Your task to perform on an android device: turn off location history Image 0: 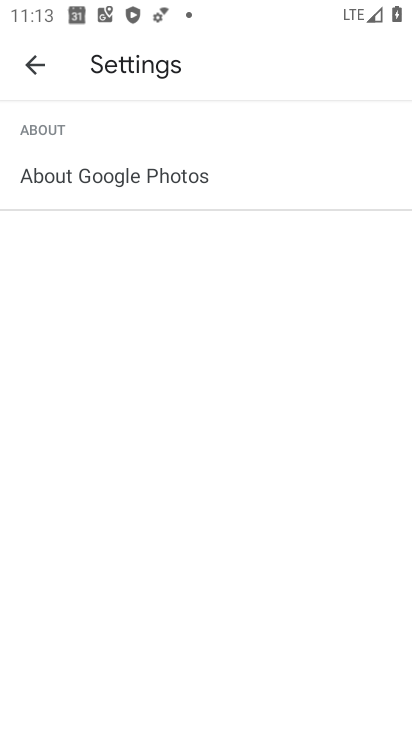
Step 0: click (45, 56)
Your task to perform on an android device: turn off location history Image 1: 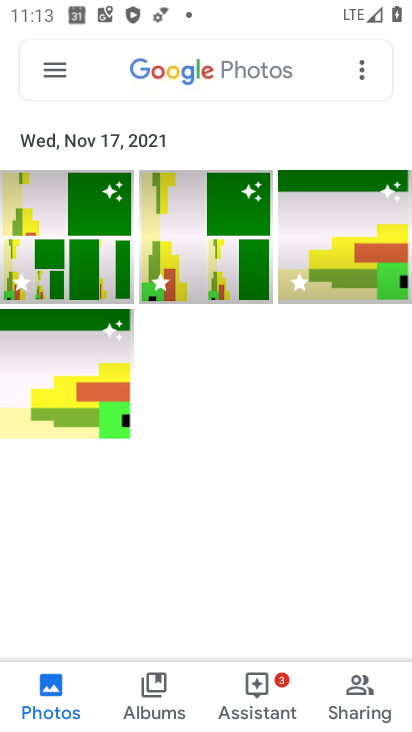
Step 1: press home button
Your task to perform on an android device: turn off location history Image 2: 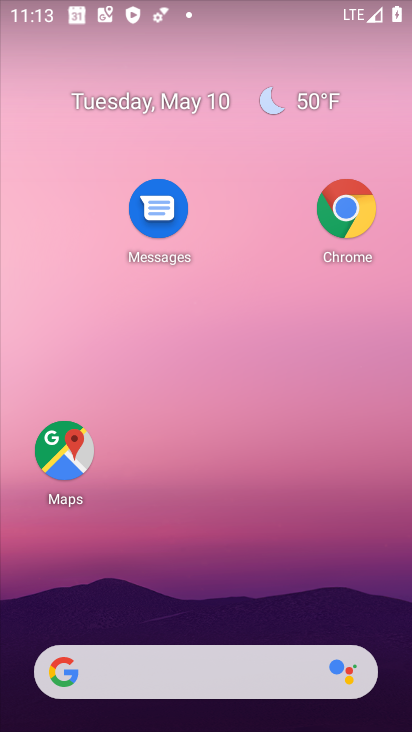
Step 2: drag from (195, 644) to (306, 52)
Your task to perform on an android device: turn off location history Image 3: 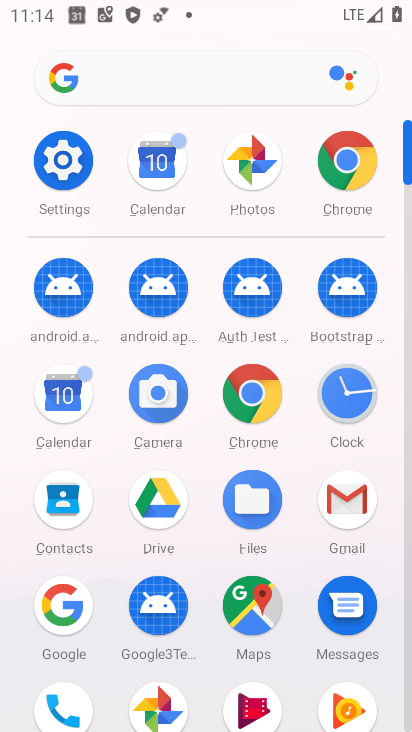
Step 3: click (62, 166)
Your task to perform on an android device: turn off location history Image 4: 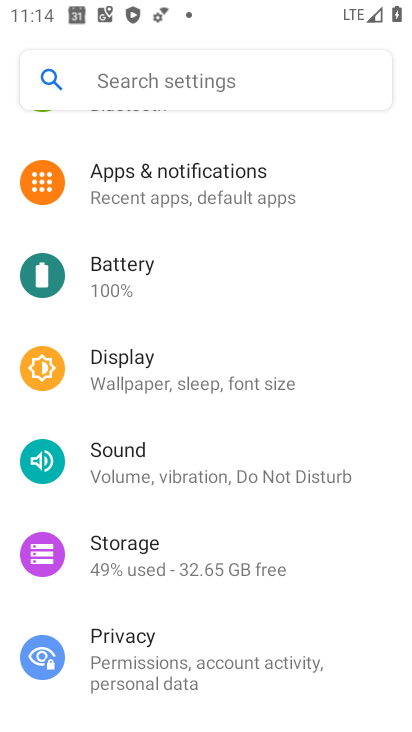
Step 4: drag from (233, 630) to (190, 187)
Your task to perform on an android device: turn off location history Image 5: 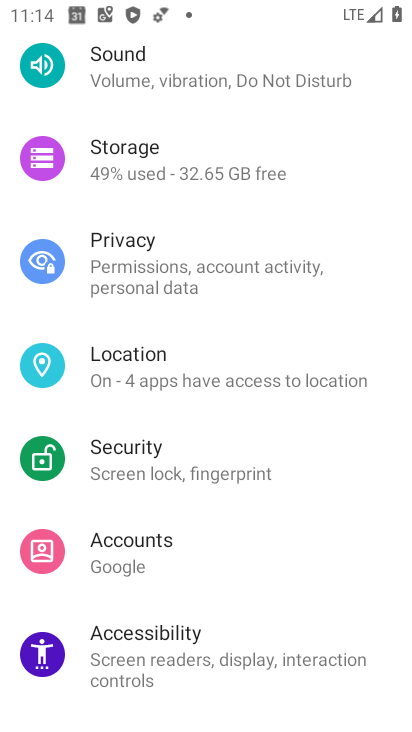
Step 5: click (160, 384)
Your task to perform on an android device: turn off location history Image 6: 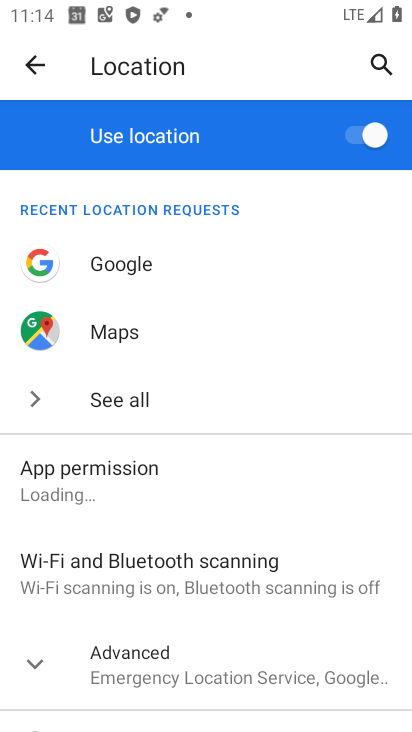
Step 6: drag from (238, 500) to (200, 182)
Your task to perform on an android device: turn off location history Image 7: 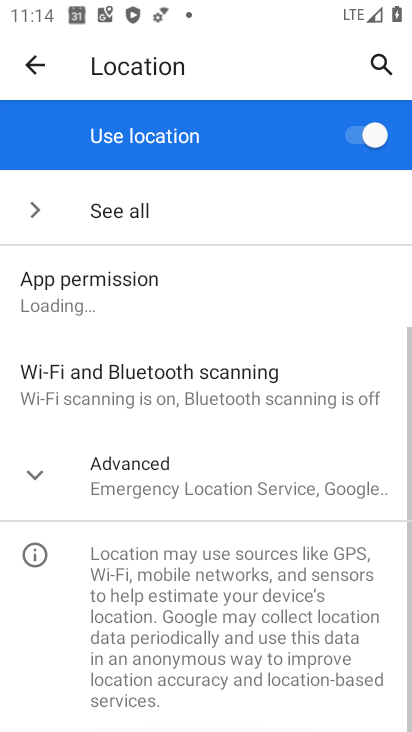
Step 7: click (176, 454)
Your task to perform on an android device: turn off location history Image 8: 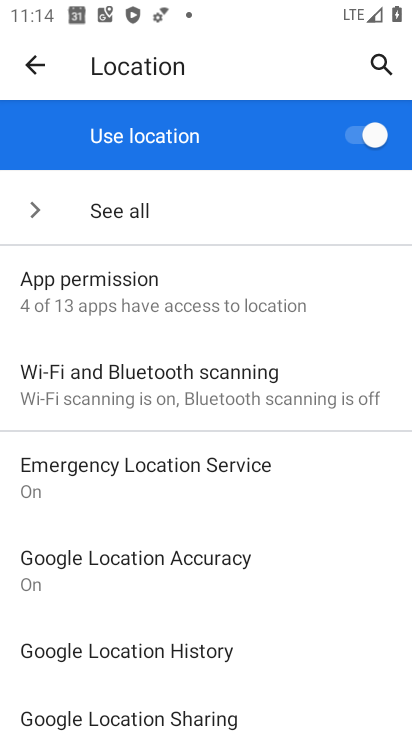
Step 8: click (166, 654)
Your task to perform on an android device: turn off location history Image 9: 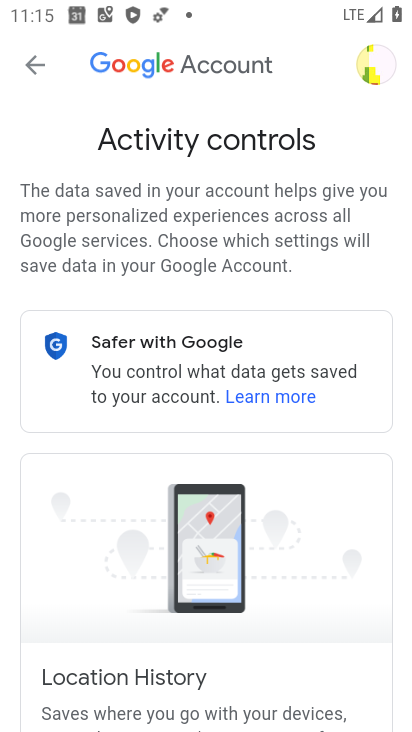
Step 9: drag from (237, 574) to (212, 150)
Your task to perform on an android device: turn off location history Image 10: 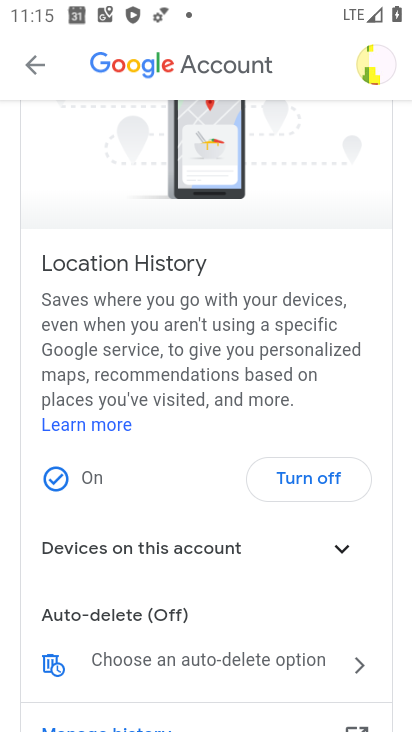
Step 10: drag from (244, 690) to (243, 528)
Your task to perform on an android device: turn off location history Image 11: 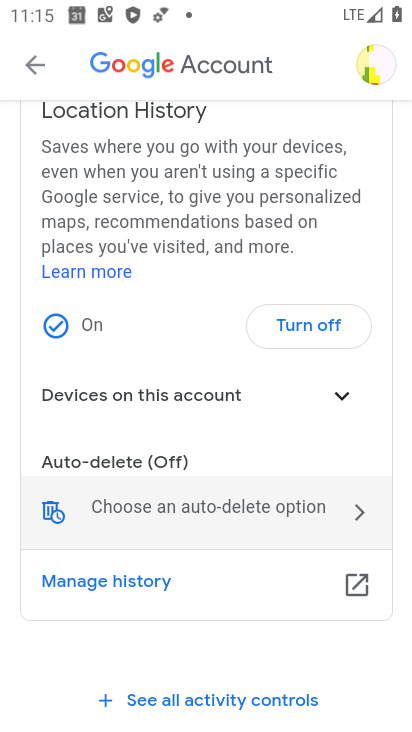
Step 11: click (335, 325)
Your task to perform on an android device: turn off location history Image 12: 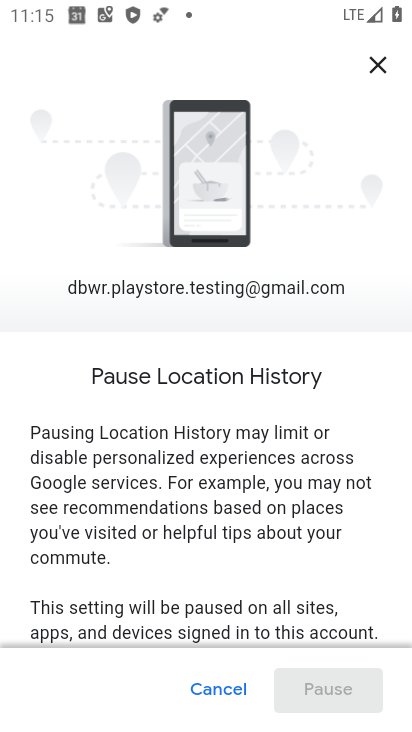
Step 12: drag from (350, 590) to (305, 3)
Your task to perform on an android device: turn off location history Image 13: 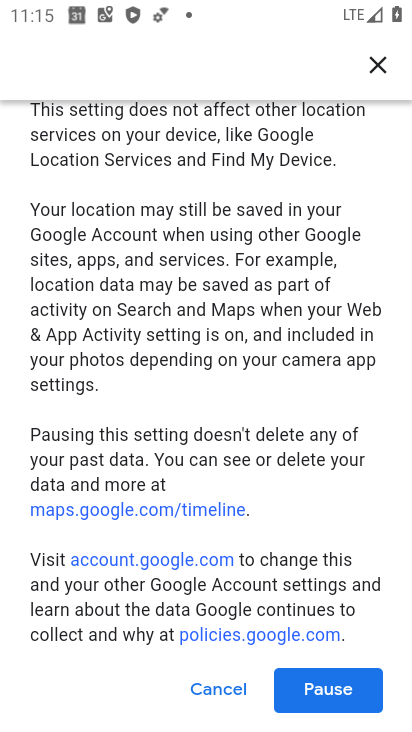
Step 13: click (304, 689)
Your task to perform on an android device: turn off location history Image 14: 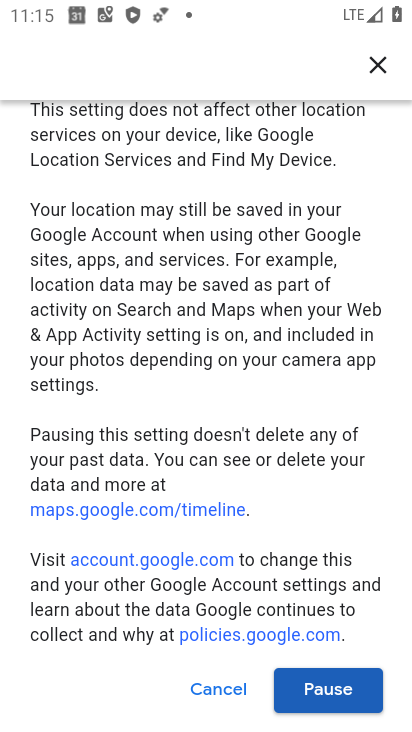
Step 14: click (334, 679)
Your task to perform on an android device: turn off location history Image 15: 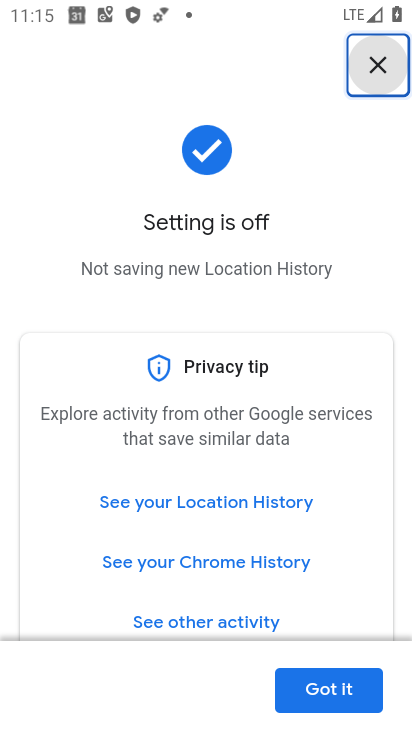
Step 15: click (323, 689)
Your task to perform on an android device: turn off location history Image 16: 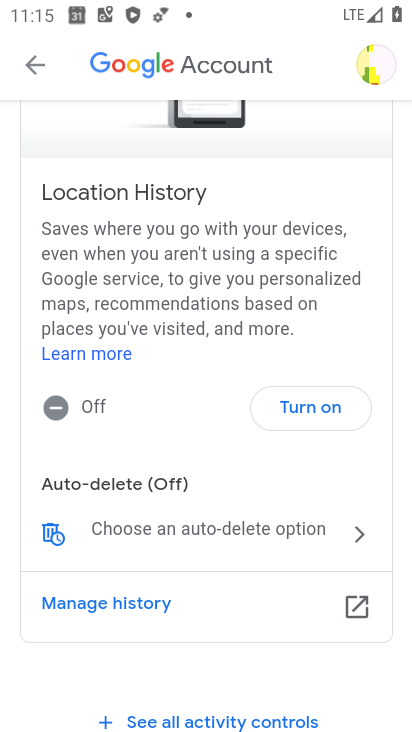
Step 16: task complete